Your task to perform on an android device: check android version Image 0: 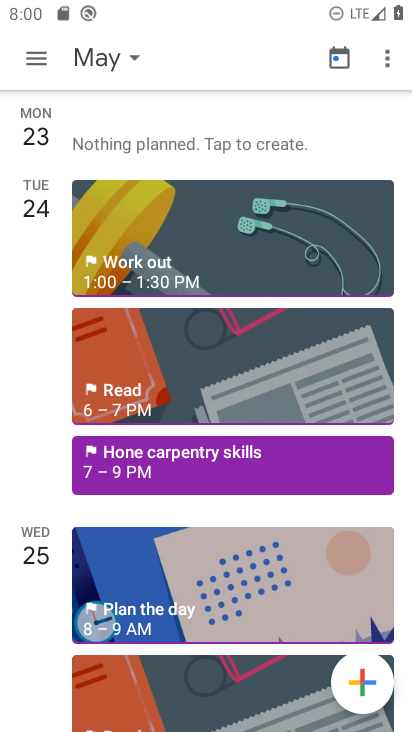
Step 0: press home button
Your task to perform on an android device: check android version Image 1: 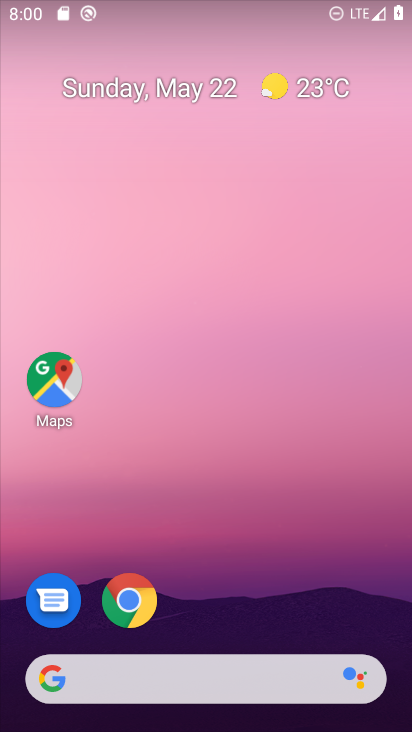
Step 1: drag from (370, 618) to (277, 27)
Your task to perform on an android device: check android version Image 2: 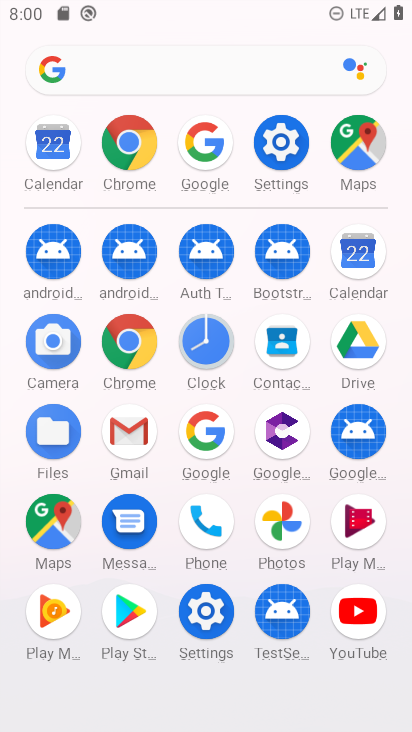
Step 2: click (294, 159)
Your task to perform on an android device: check android version Image 3: 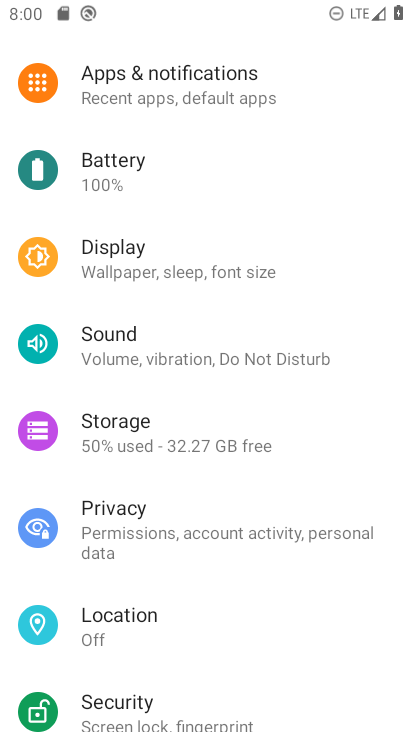
Step 3: drag from (171, 675) to (175, 36)
Your task to perform on an android device: check android version Image 4: 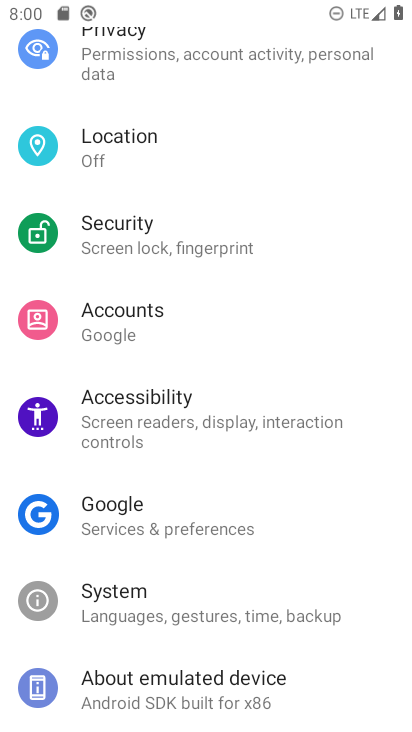
Step 4: click (188, 696)
Your task to perform on an android device: check android version Image 5: 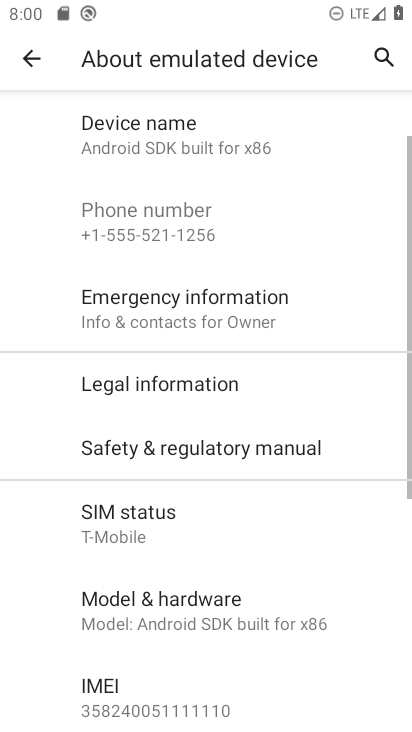
Step 5: drag from (187, 659) to (192, 190)
Your task to perform on an android device: check android version Image 6: 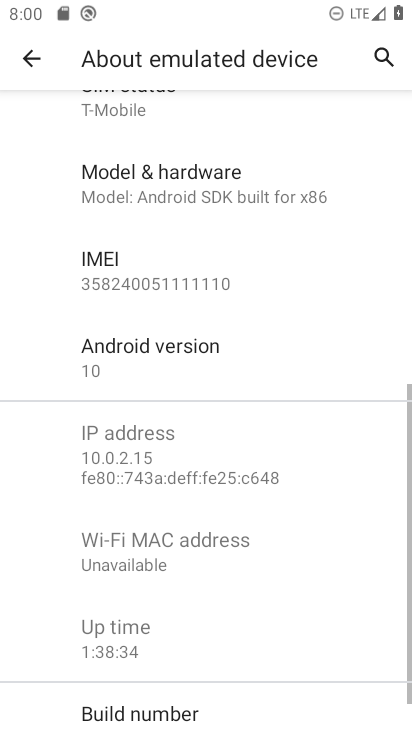
Step 6: click (195, 366)
Your task to perform on an android device: check android version Image 7: 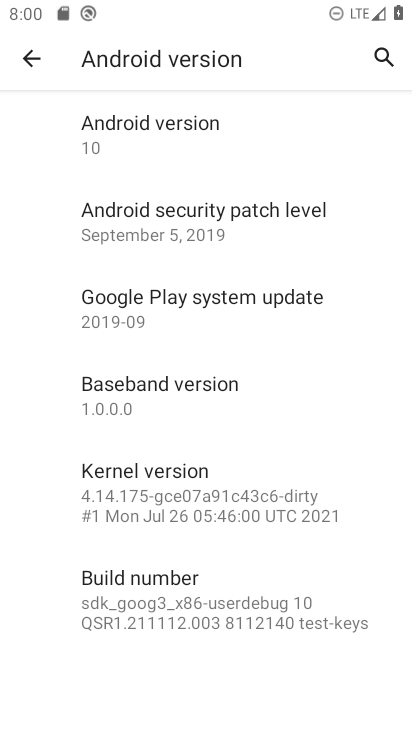
Step 7: task complete